Your task to perform on an android device: toggle data saver in the chrome app Image 0: 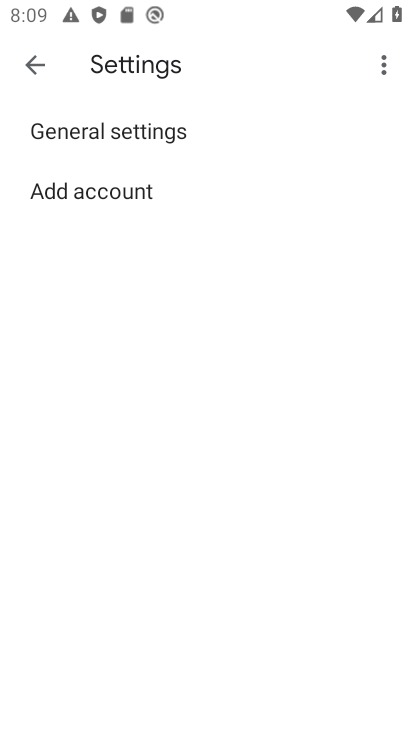
Step 0: drag from (285, 411) to (257, 272)
Your task to perform on an android device: toggle data saver in the chrome app Image 1: 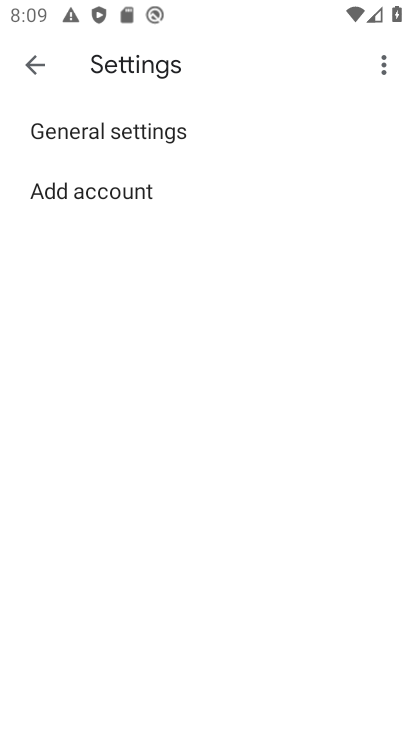
Step 1: click (36, 64)
Your task to perform on an android device: toggle data saver in the chrome app Image 2: 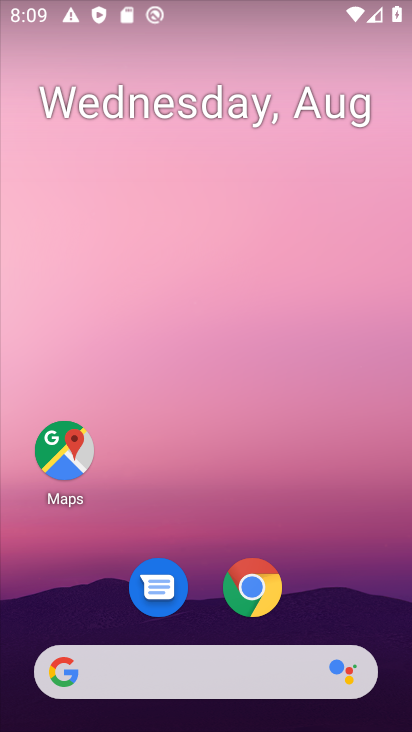
Step 2: drag from (175, 611) to (146, 250)
Your task to perform on an android device: toggle data saver in the chrome app Image 3: 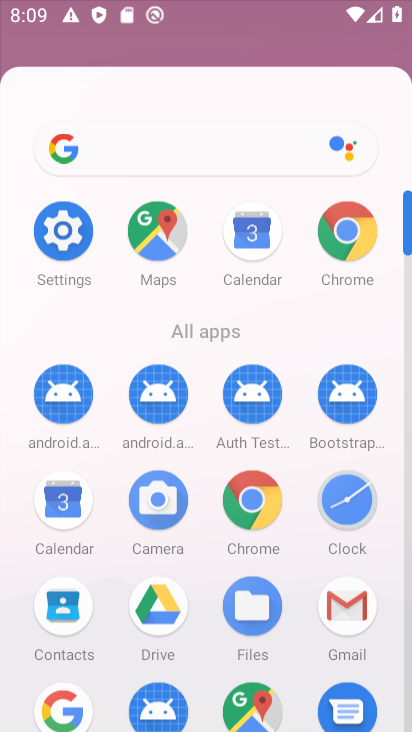
Step 3: drag from (258, 604) to (224, 246)
Your task to perform on an android device: toggle data saver in the chrome app Image 4: 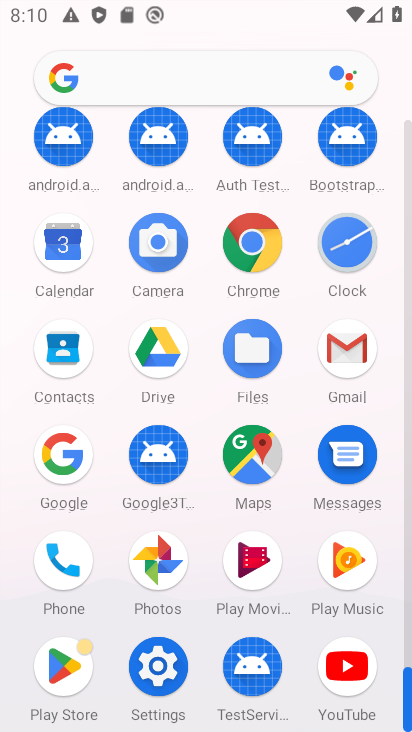
Step 4: click (247, 241)
Your task to perform on an android device: toggle data saver in the chrome app Image 5: 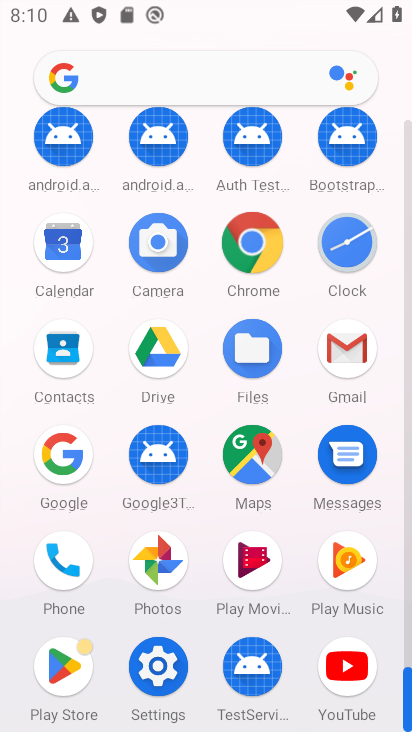
Step 5: click (247, 241)
Your task to perform on an android device: toggle data saver in the chrome app Image 6: 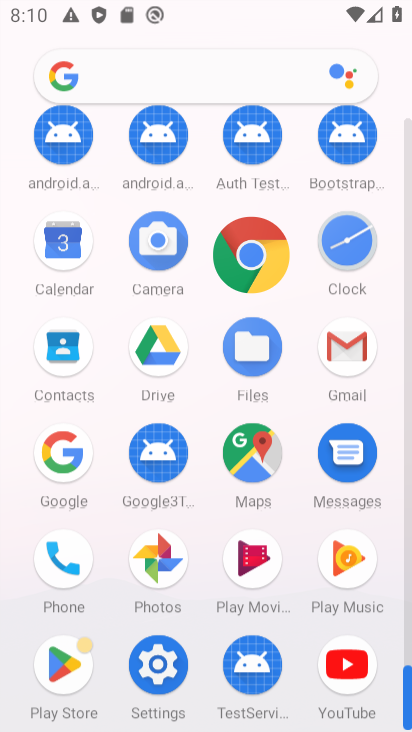
Step 6: click (247, 241)
Your task to perform on an android device: toggle data saver in the chrome app Image 7: 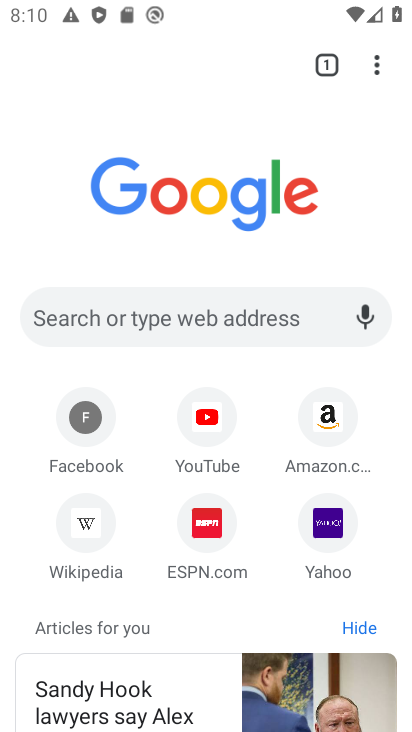
Step 7: drag from (369, 66) to (149, 539)
Your task to perform on an android device: toggle data saver in the chrome app Image 8: 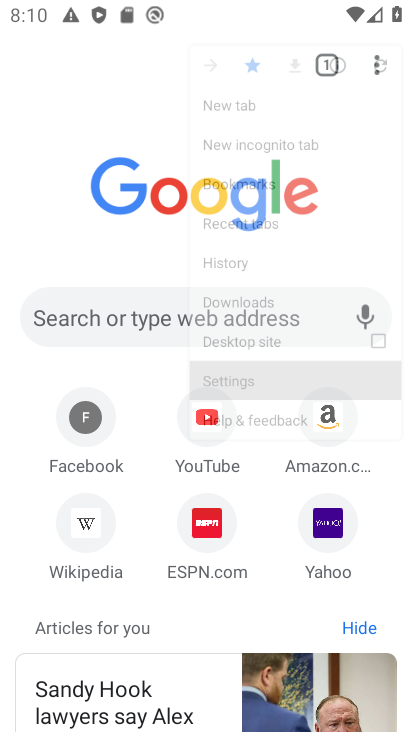
Step 8: click (137, 546)
Your task to perform on an android device: toggle data saver in the chrome app Image 9: 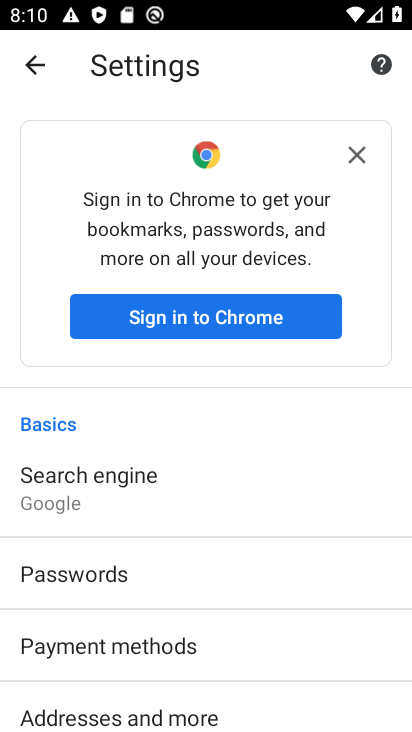
Step 9: click (362, 153)
Your task to perform on an android device: toggle data saver in the chrome app Image 10: 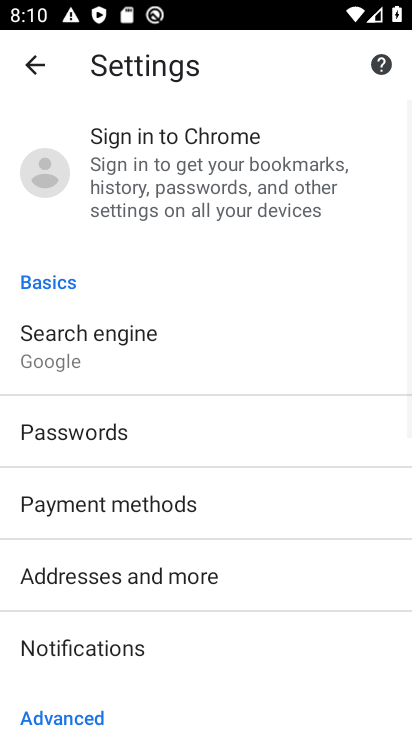
Step 10: drag from (64, 333) to (153, 302)
Your task to perform on an android device: toggle data saver in the chrome app Image 11: 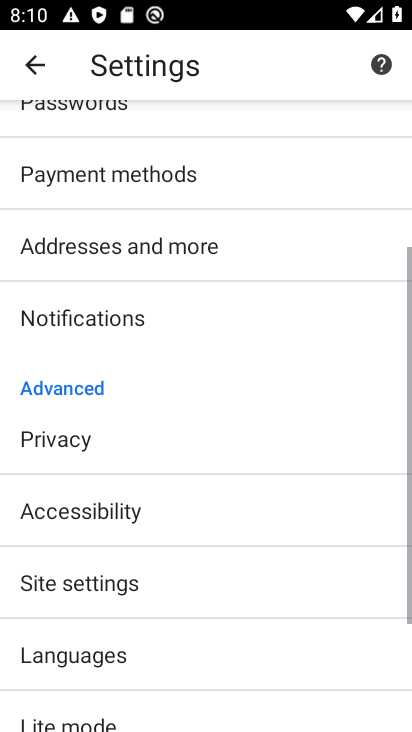
Step 11: drag from (116, 590) to (117, 263)
Your task to perform on an android device: toggle data saver in the chrome app Image 12: 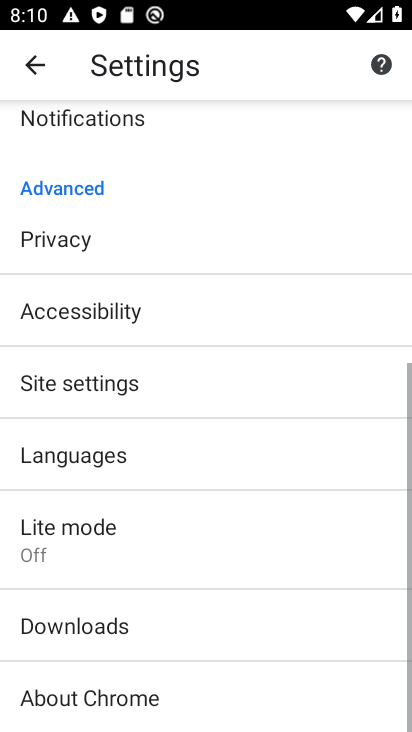
Step 12: click (67, 528)
Your task to perform on an android device: toggle data saver in the chrome app Image 13: 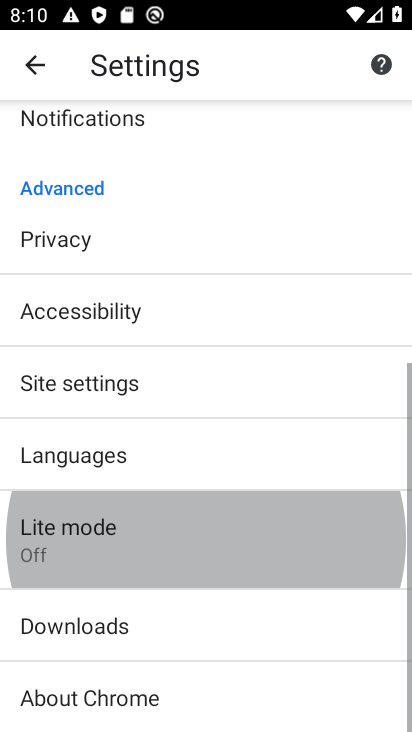
Step 13: click (67, 528)
Your task to perform on an android device: toggle data saver in the chrome app Image 14: 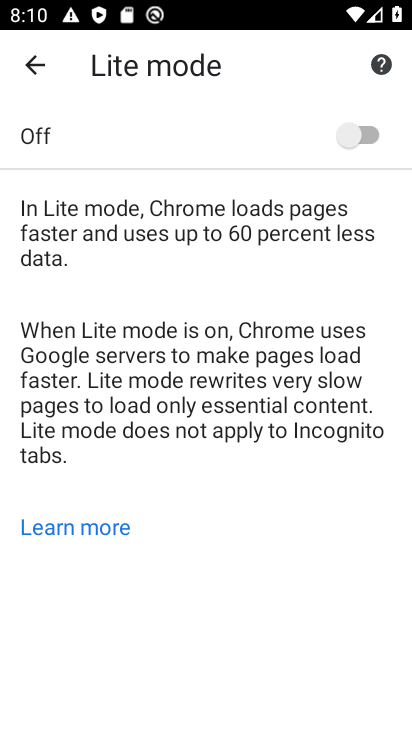
Step 14: click (336, 126)
Your task to perform on an android device: toggle data saver in the chrome app Image 15: 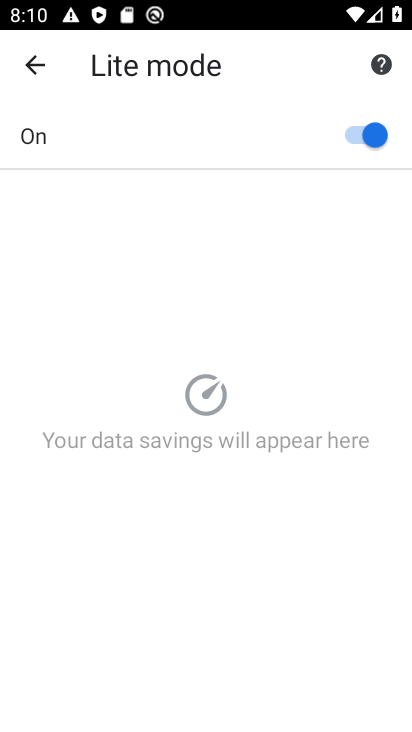
Step 15: task complete